Your task to perform on an android device: Add duracell triple a to the cart on costco, then select checkout. Image 0: 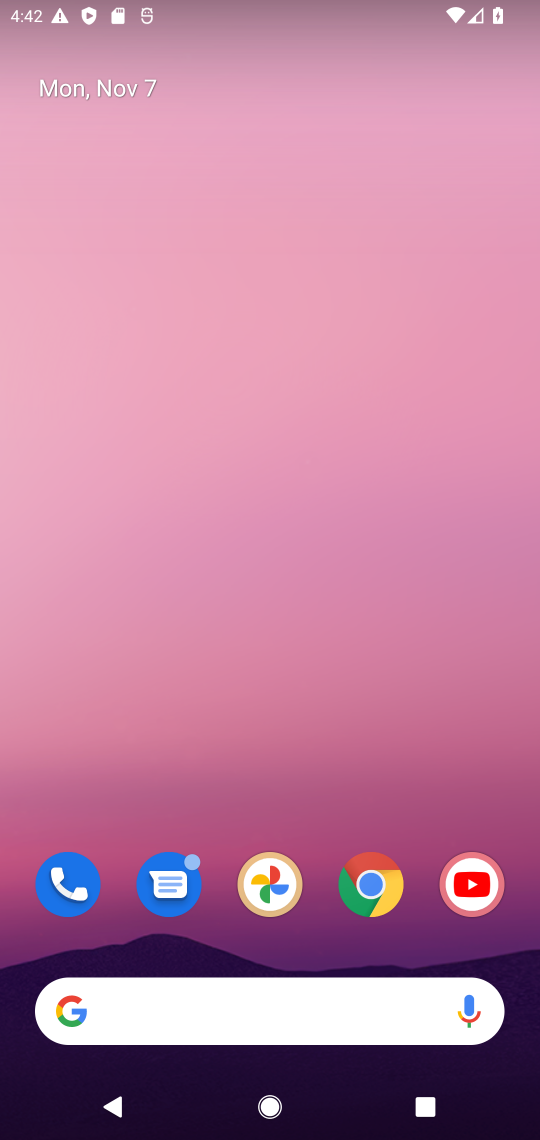
Step 0: drag from (317, 945) to (265, 18)
Your task to perform on an android device: Add duracell triple a to the cart on costco, then select checkout. Image 1: 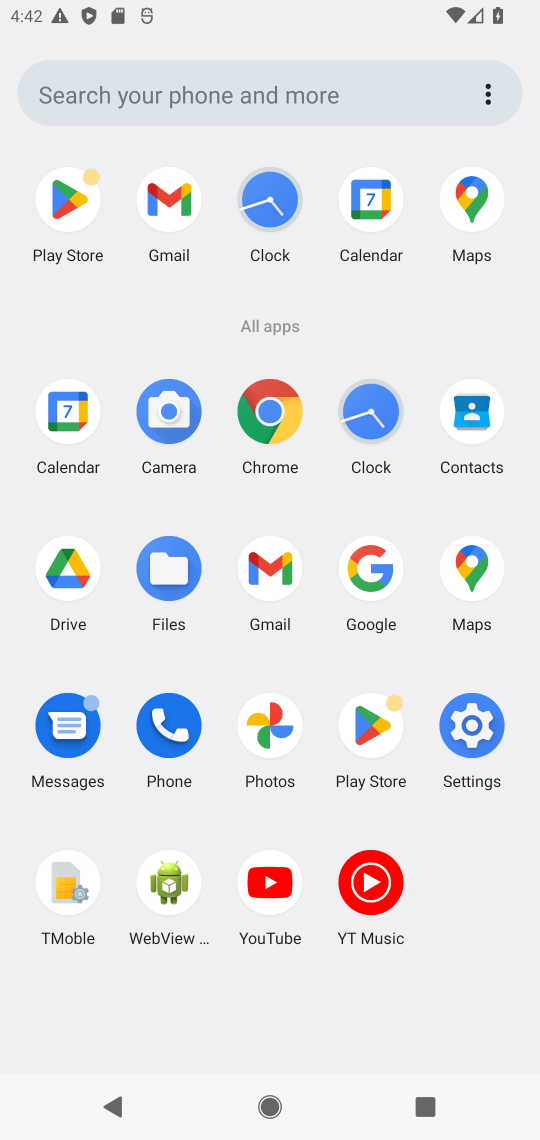
Step 1: click (280, 404)
Your task to perform on an android device: Add duracell triple a to the cart on costco, then select checkout. Image 2: 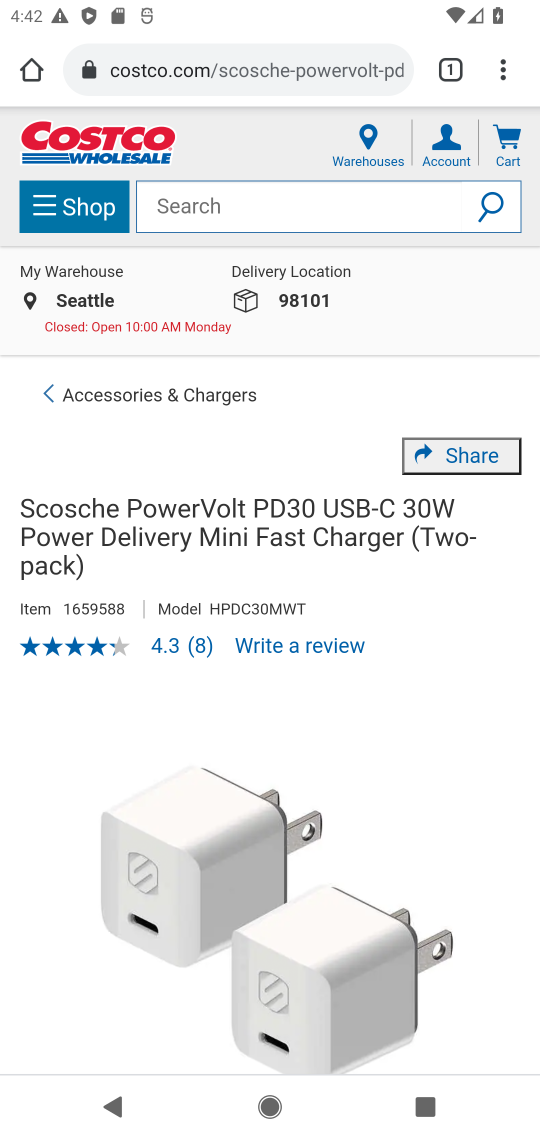
Step 2: click (249, 202)
Your task to perform on an android device: Add duracell triple a to the cart on costco, then select checkout. Image 3: 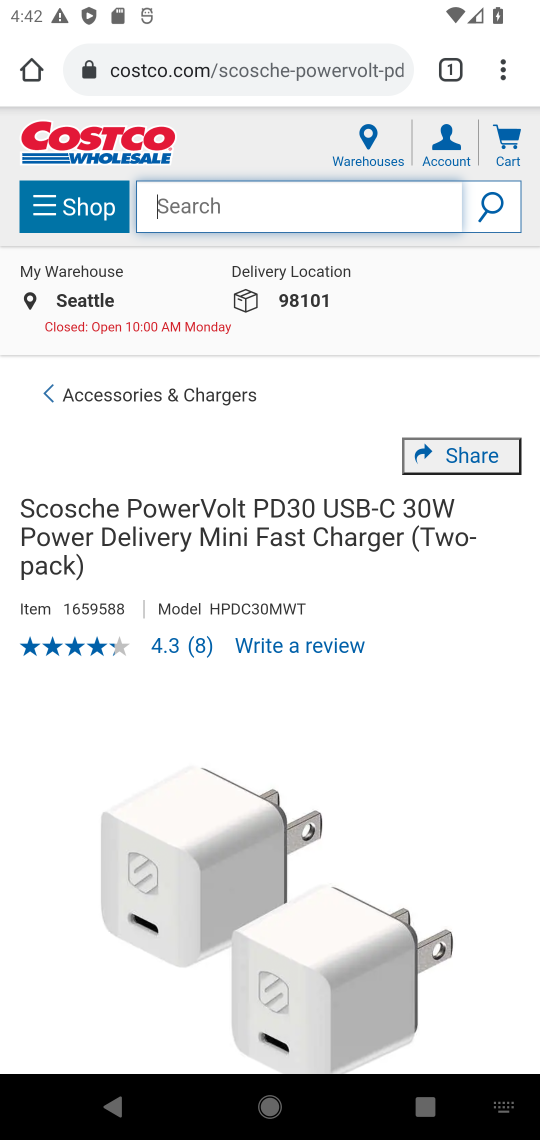
Step 3: type "duracell triple a"
Your task to perform on an android device: Add duracell triple a to the cart on costco, then select checkout. Image 4: 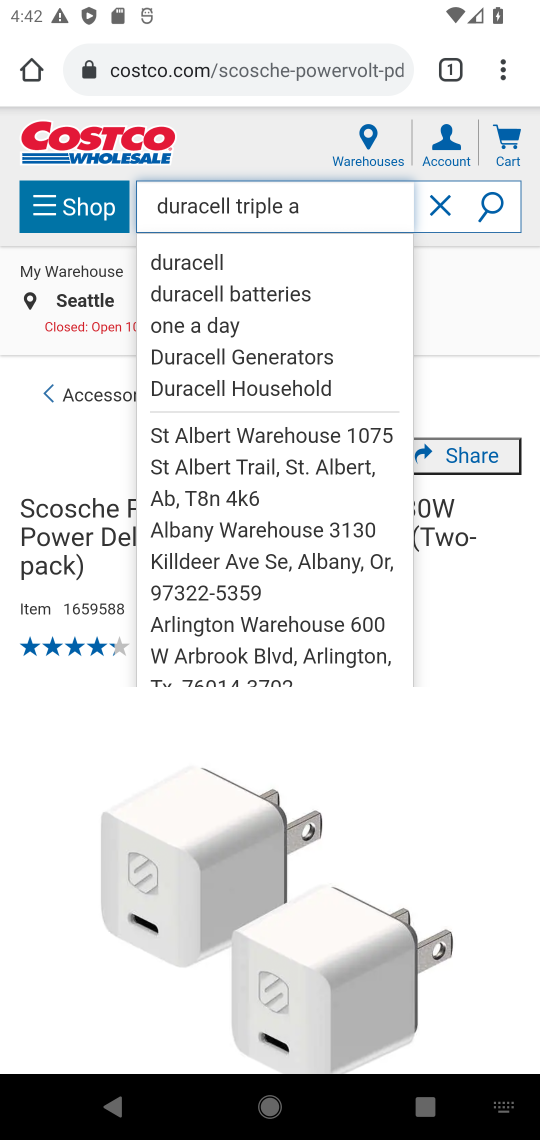
Step 4: press enter
Your task to perform on an android device: Add duracell triple a to the cart on costco, then select checkout. Image 5: 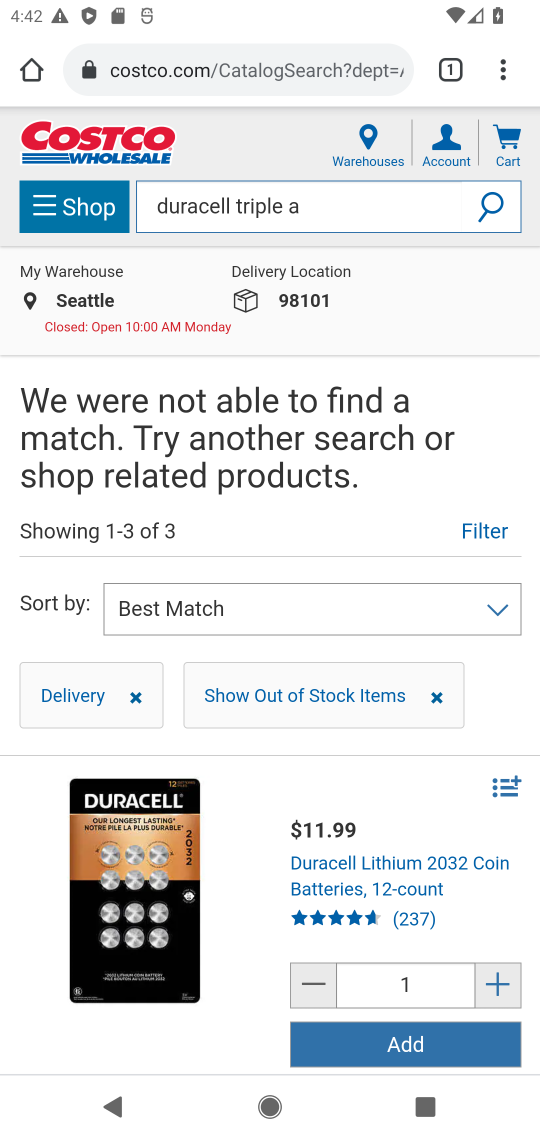
Step 5: task complete